Your task to perform on an android device: Open Youtube and go to "Your channel" Image 0: 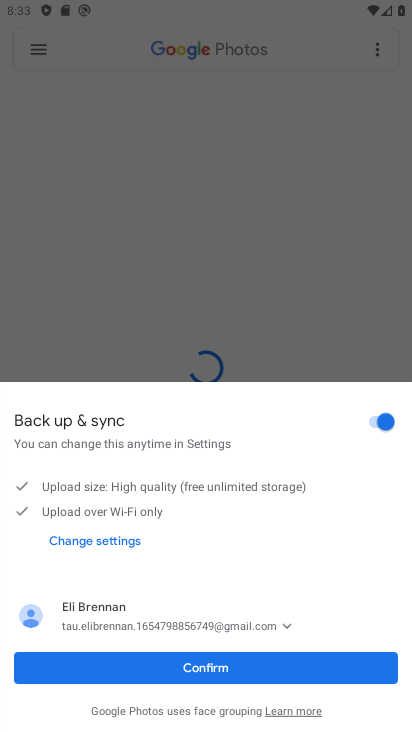
Step 0: press home button
Your task to perform on an android device: Open Youtube and go to "Your channel" Image 1: 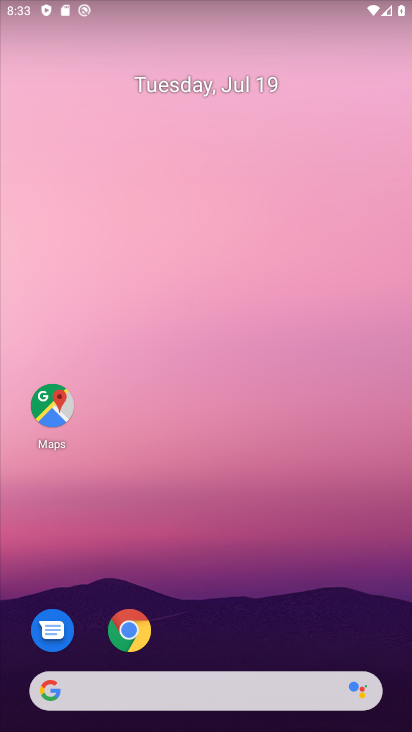
Step 1: drag from (196, 691) to (201, 191)
Your task to perform on an android device: Open Youtube and go to "Your channel" Image 2: 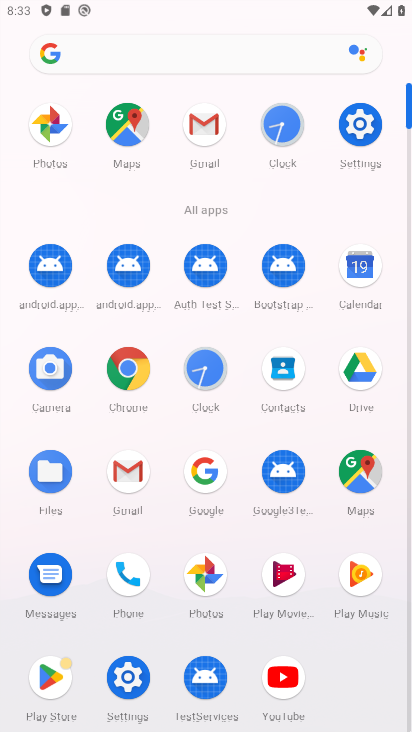
Step 2: click (282, 676)
Your task to perform on an android device: Open Youtube and go to "Your channel" Image 3: 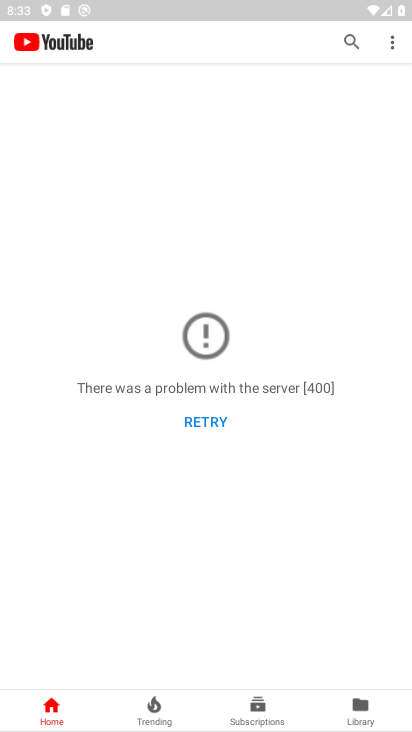
Step 3: click (213, 419)
Your task to perform on an android device: Open Youtube and go to "Your channel" Image 4: 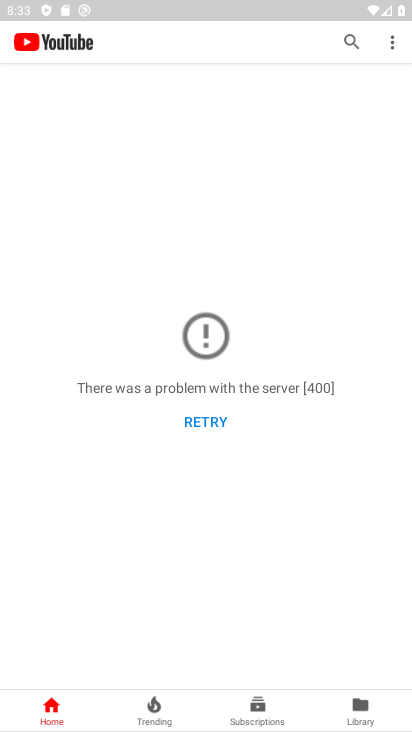
Step 4: click (213, 419)
Your task to perform on an android device: Open Youtube and go to "Your channel" Image 5: 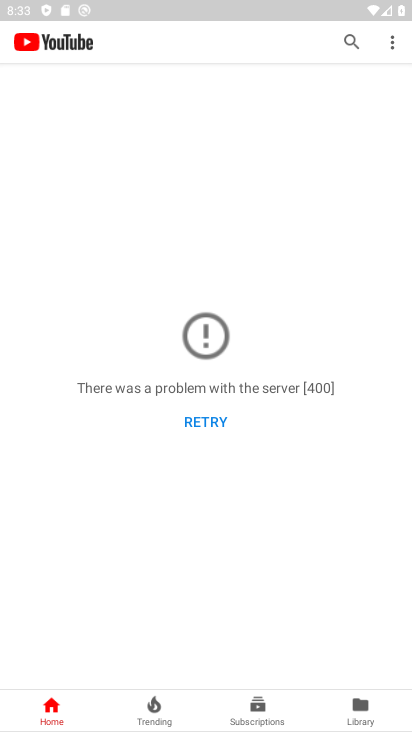
Step 5: task complete